Your task to perform on an android device: open sync settings in chrome Image 0: 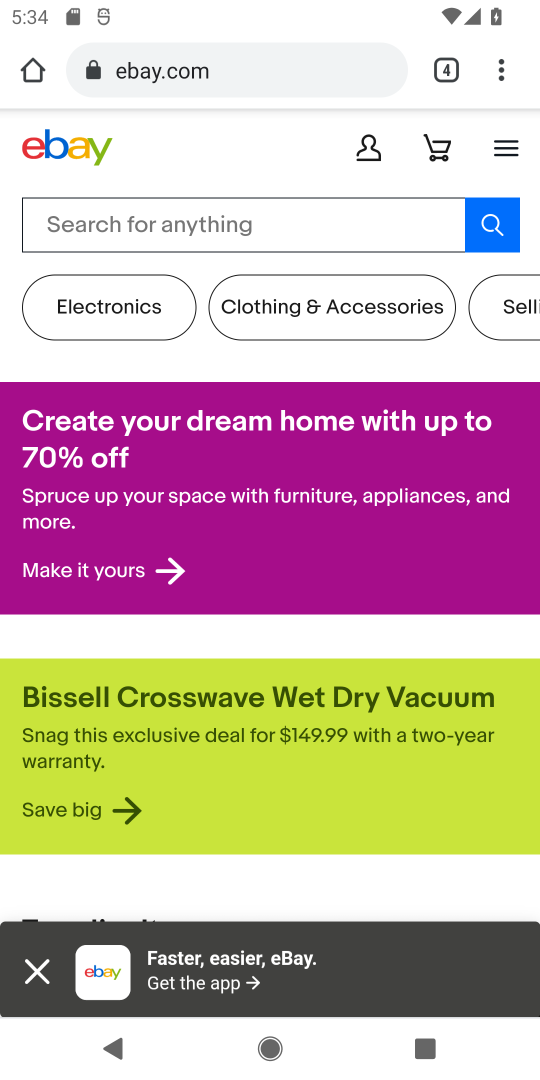
Step 0: click (497, 59)
Your task to perform on an android device: open sync settings in chrome Image 1: 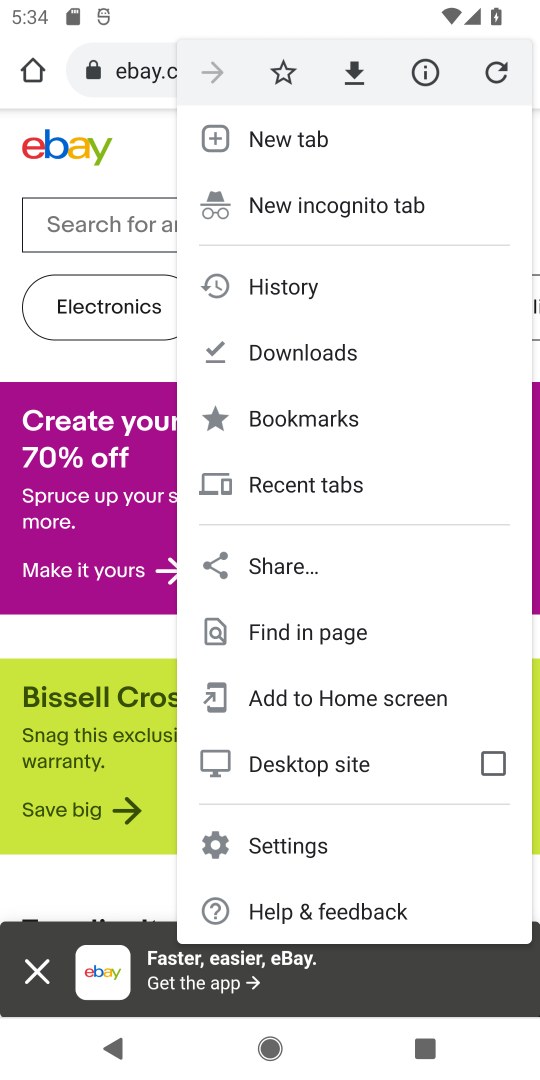
Step 1: click (304, 835)
Your task to perform on an android device: open sync settings in chrome Image 2: 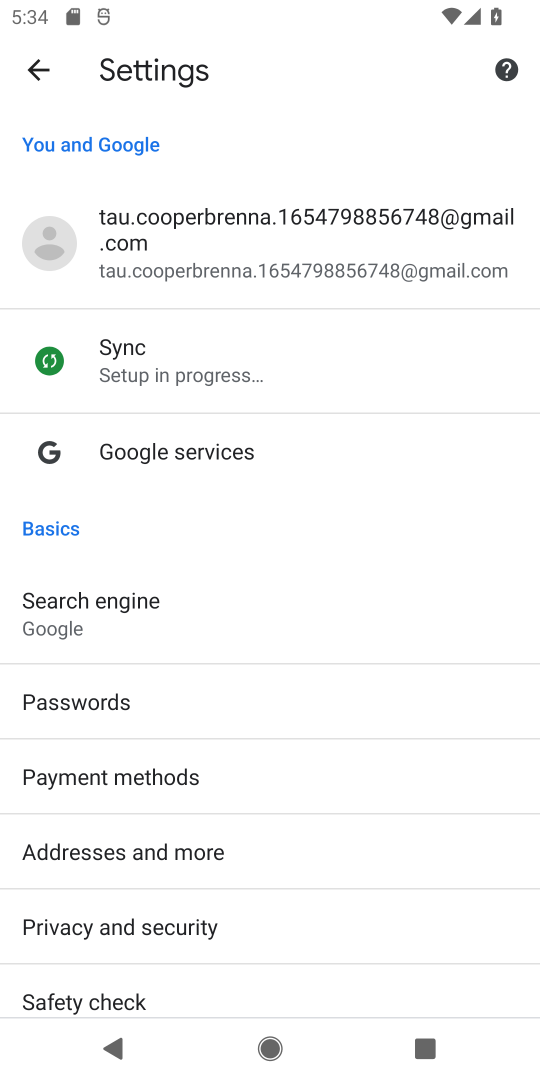
Step 2: click (202, 387)
Your task to perform on an android device: open sync settings in chrome Image 3: 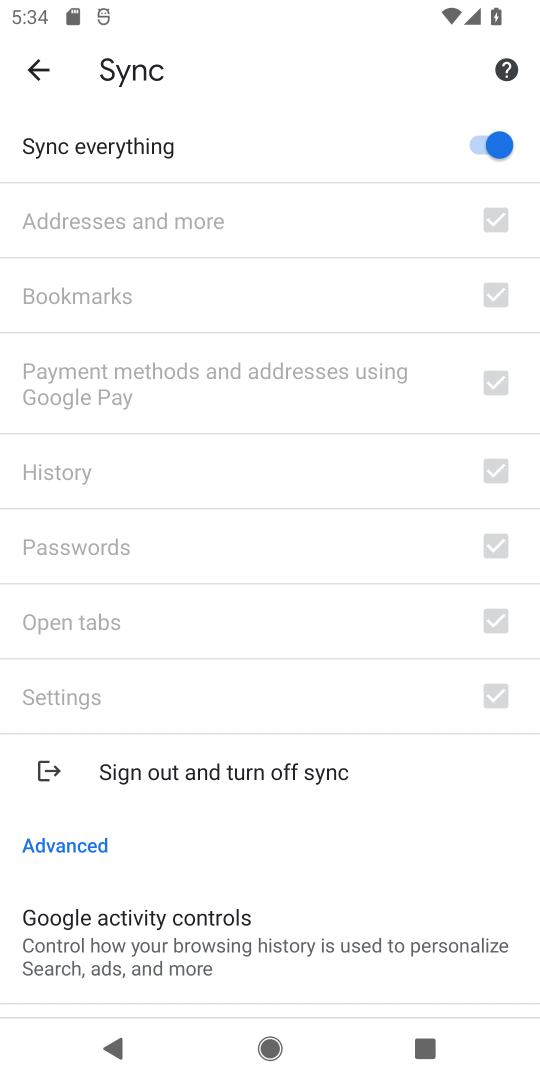
Step 3: task complete